Your task to perform on an android device: Open Yahoo.com Image 0: 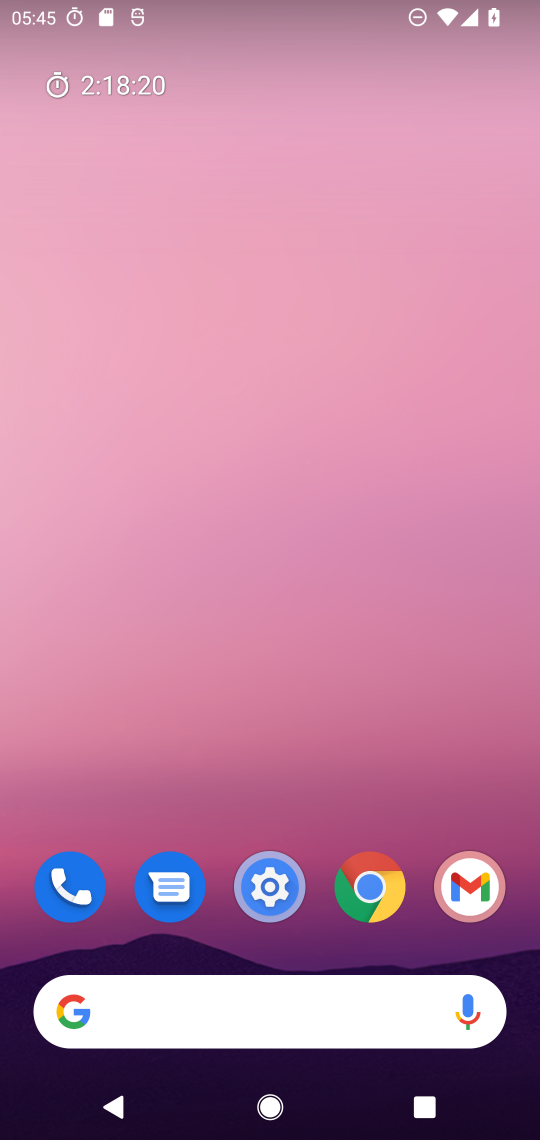
Step 0: press home button
Your task to perform on an android device: Open Yahoo.com Image 1: 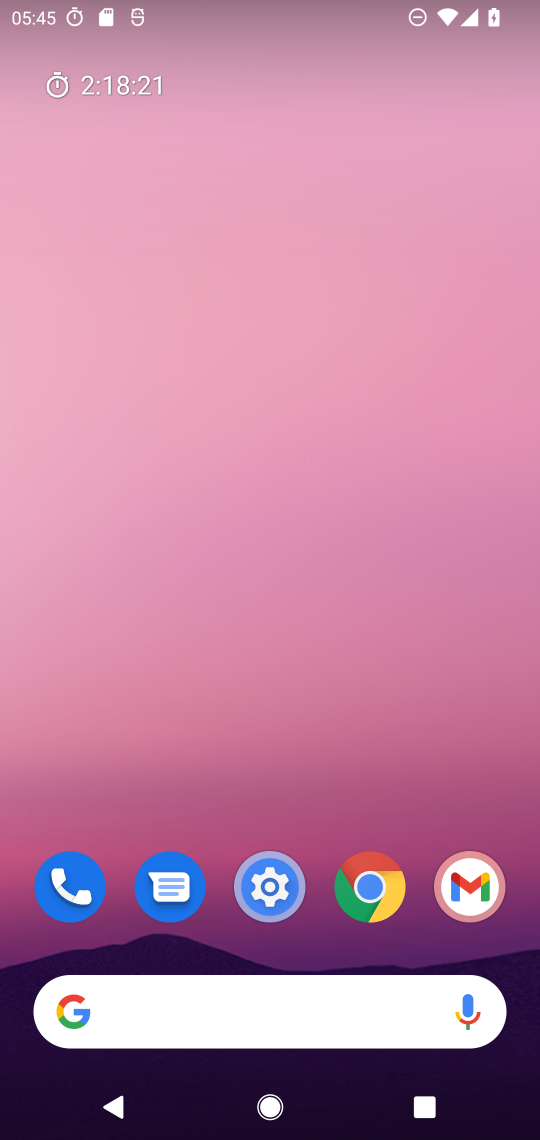
Step 1: drag from (411, 729) to (406, 314)
Your task to perform on an android device: Open Yahoo.com Image 2: 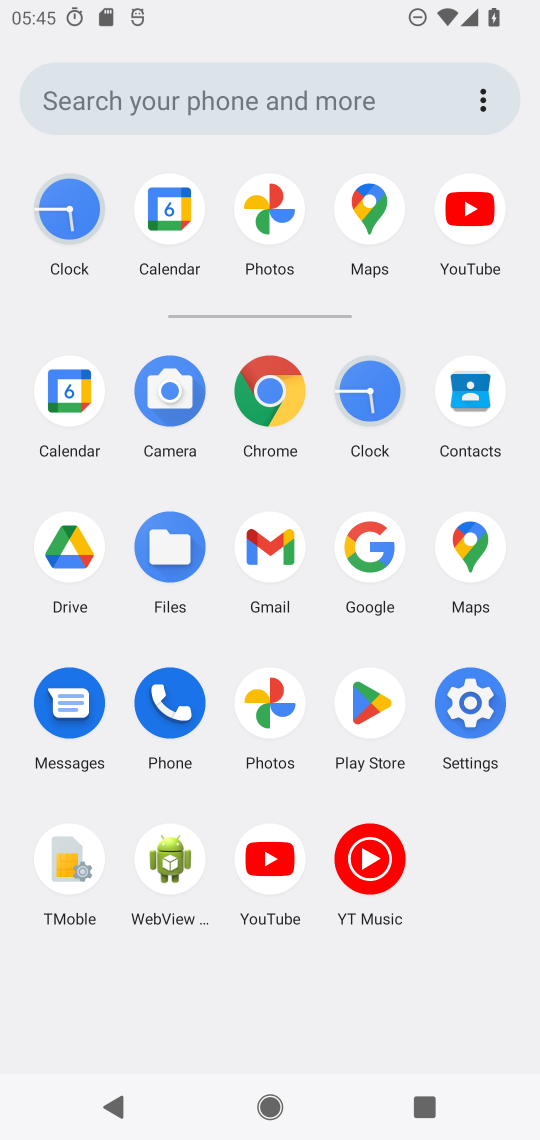
Step 2: click (261, 388)
Your task to perform on an android device: Open Yahoo.com Image 3: 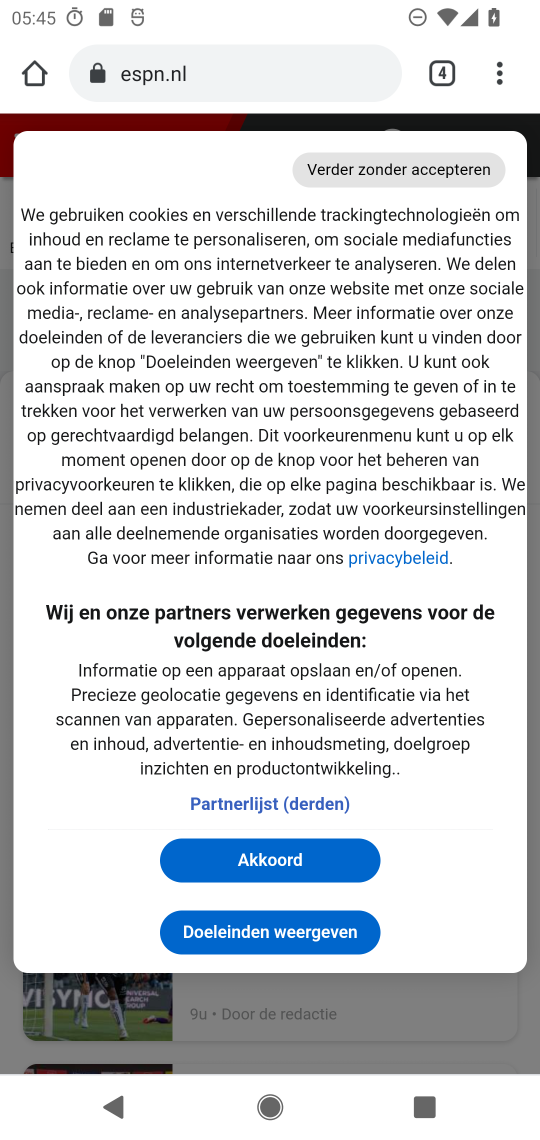
Step 3: click (240, 72)
Your task to perform on an android device: Open Yahoo.com Image 4: 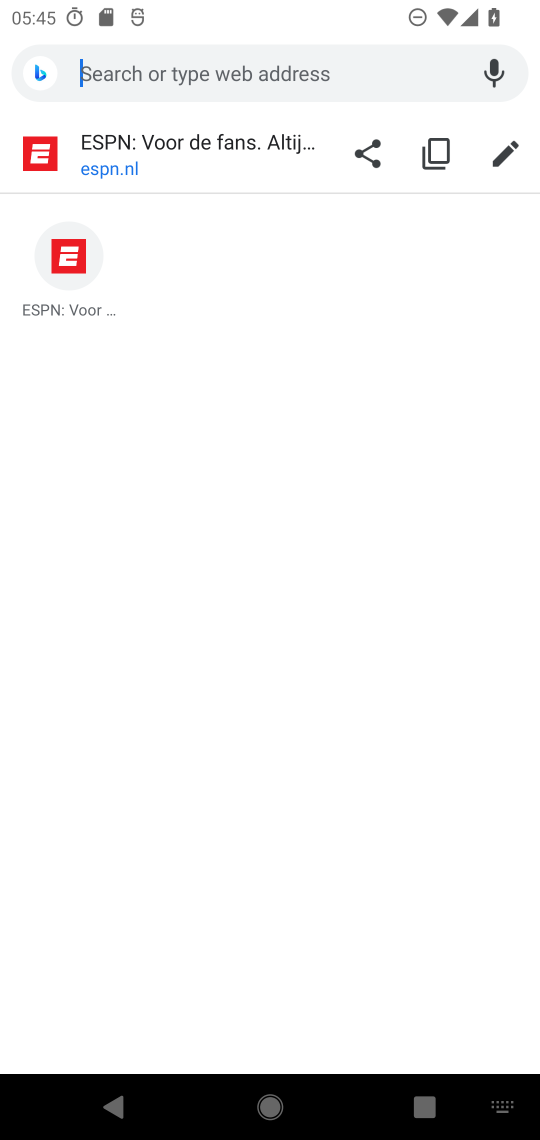
Step 4: type "yahoo.com"
Your task to perform on an android device: Open Yahoo.com Image 5: 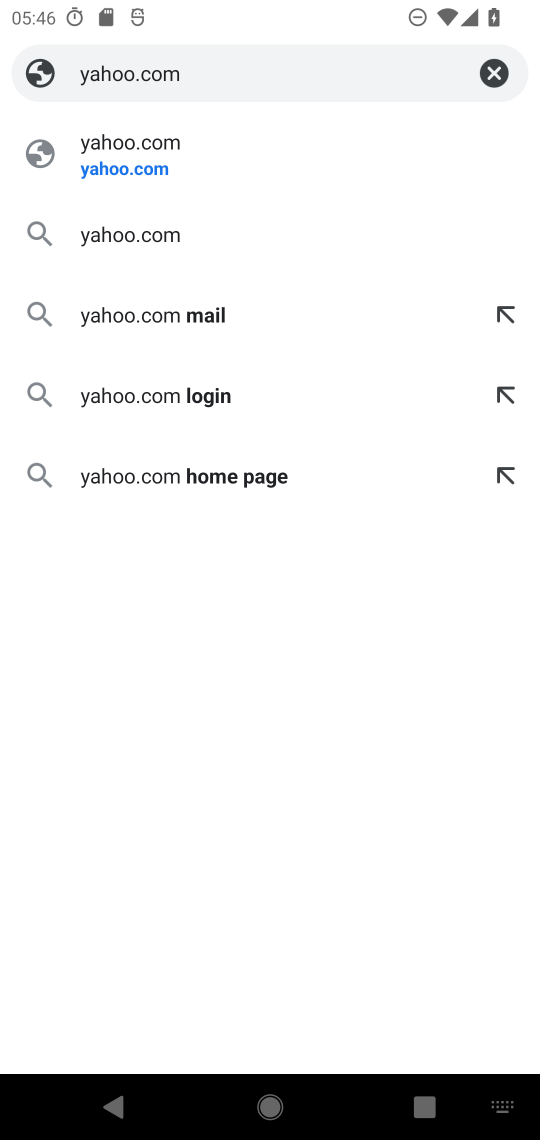
Step 5: click (142, 157)
Your task to perform on an android device: Open Yahoo.com Image 6: 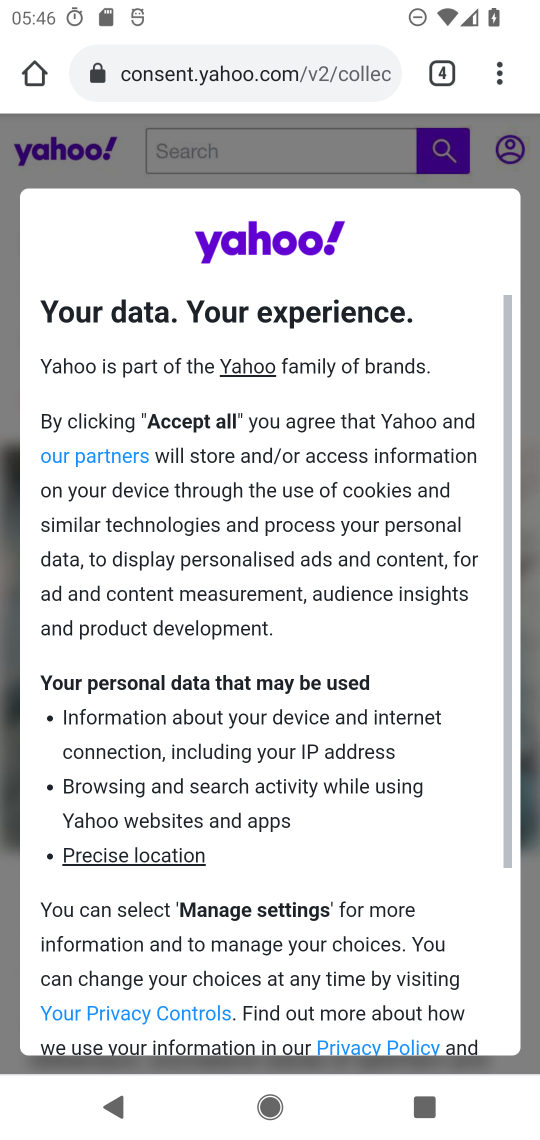
Step 6: task complete